Your task to perform on an android device: delete the emails in spam in the gmail app Image 0: 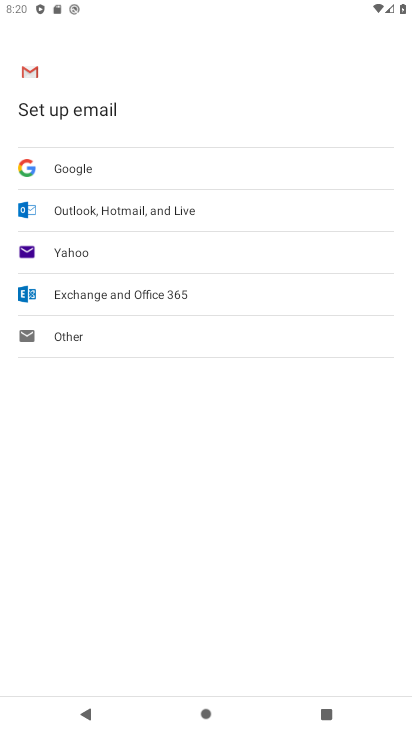
Step 0: press home button
Your task to perform on an android device: delete the emails in spam in the gmail app Image 1: 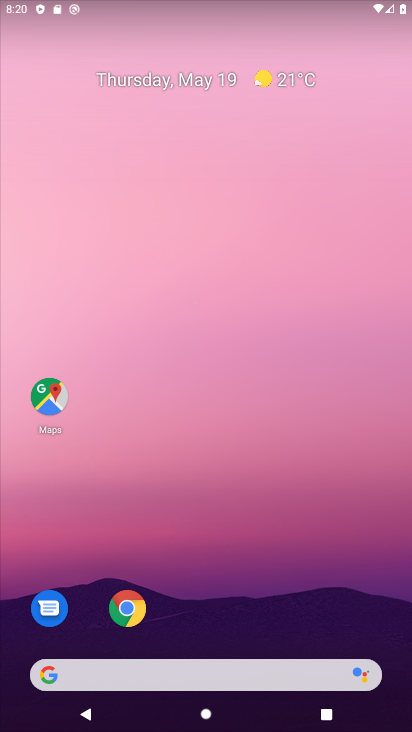
Step 1: drag from (218, 546) to (152, 28)
Your task to perform on an android device: delete the emails in spam in the gmail app Image 2: 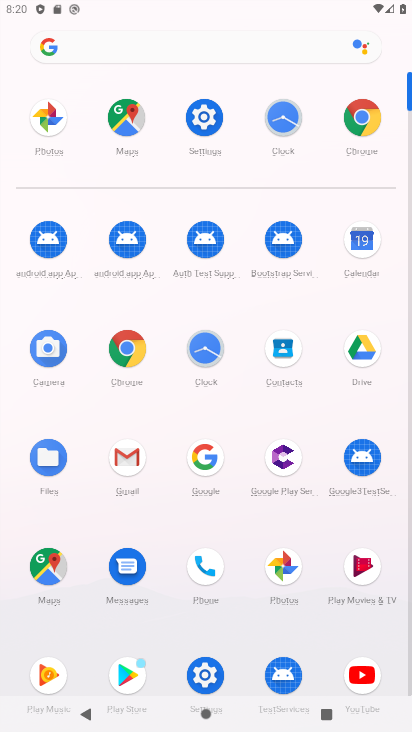
Step 2: click (127, 461)
Your task to perform on an android device: delete the emails in spam in the gmail app Image 3: 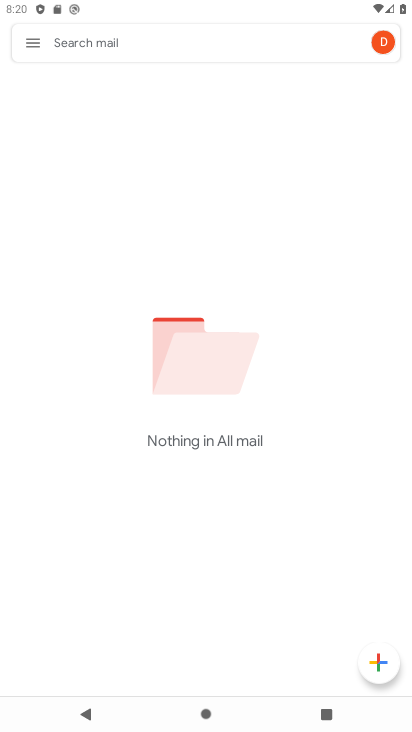
Step 3: click (31, 41)
Your task to perform on an android device: delete the emails in spam in the gmail app Image 4: 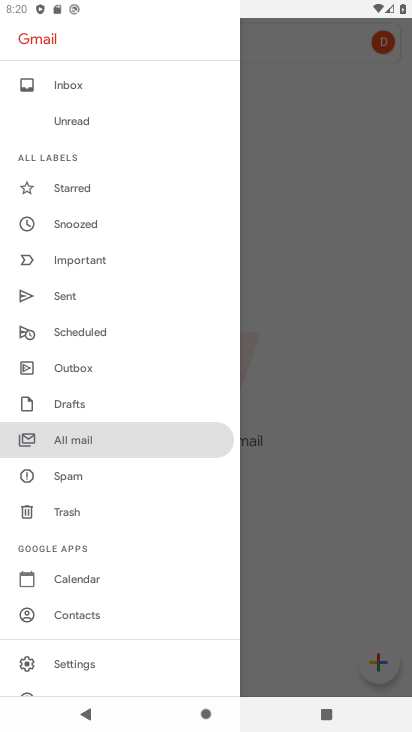
Step 4: click (70, 472)
Your task to perform on an android device: delete the emails in spam in the gmail app Image 5: 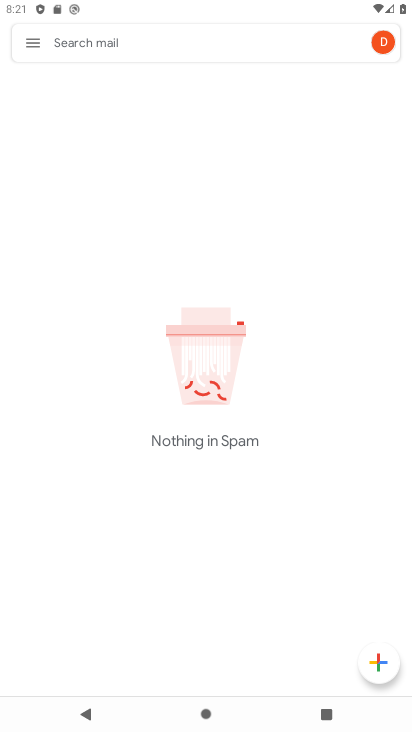
Step 5: task complete